Your task to perform on an android device: Open Chrome and go to the settings page Image 0: 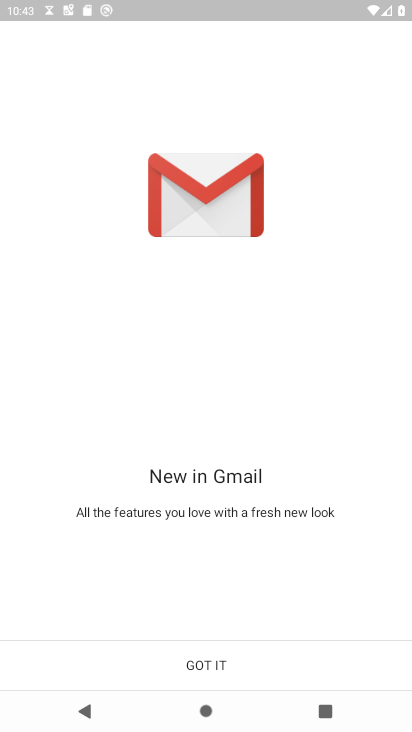
Step 0: click (221, 664)
Your task to perform on an android device: Open Chrome and go to the settings page Image 1: 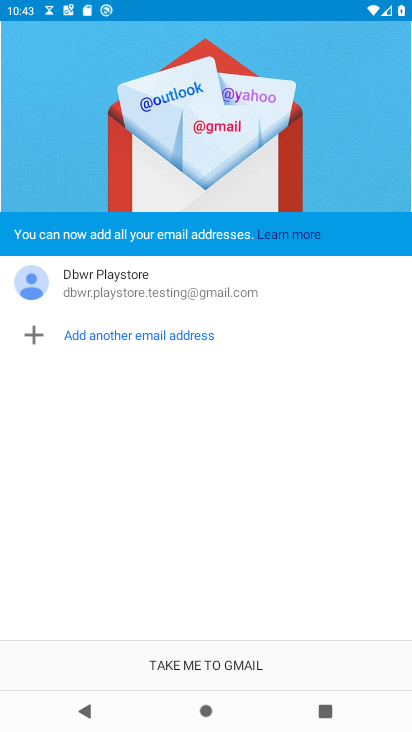
Step 1: click (282, 663)
Your task to perform on an android device: Open Chrome and go to the settings page Image 2: 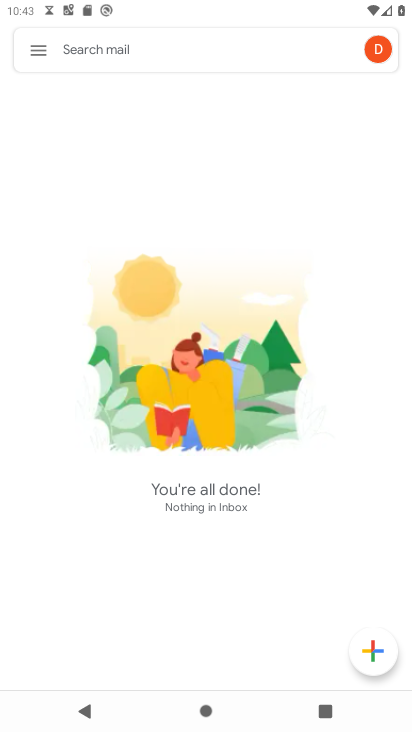
Step 2: press home button
Your task to perform on an android device: Open Chrome and go to the settings page Image 3: 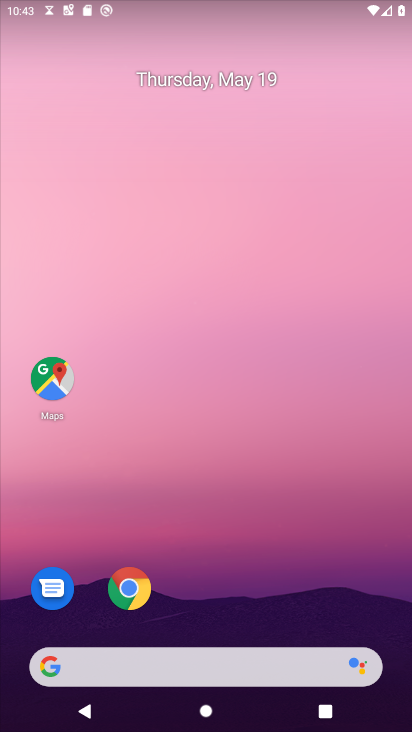
Step 3: drag from (296, 589) to (296, 707)
Your task to perform on an android device: Open Chrome and go to the settings page Image 4: 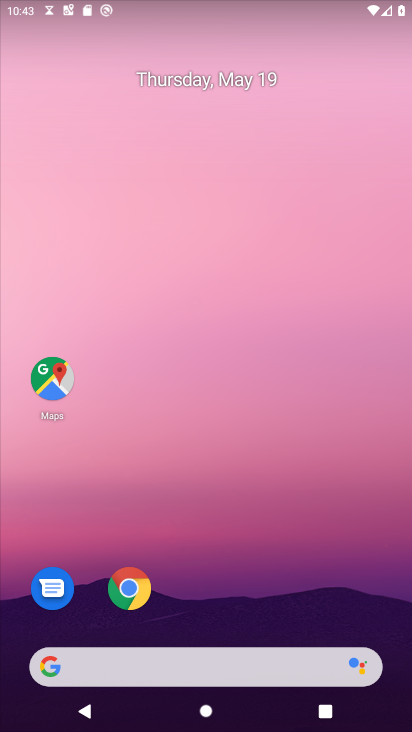
Step 4: click (131, 592)
Your task to perform on an android device: Open Chrome and go to the settings page Image 5: 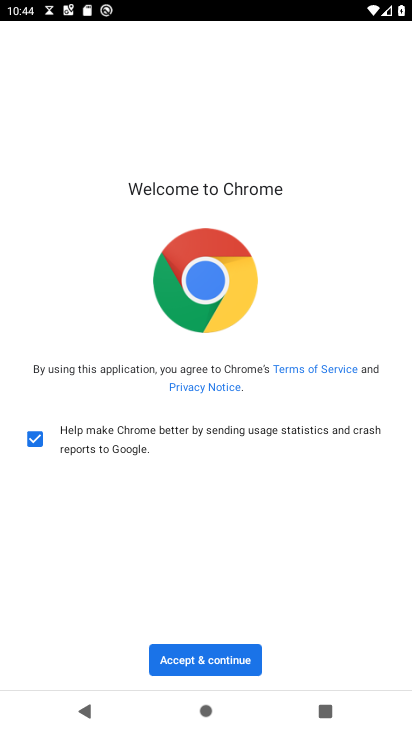
Step 5: click (235, 658)
Your task to perform on an android device: Open Chrome and go to the settings page Image 6: 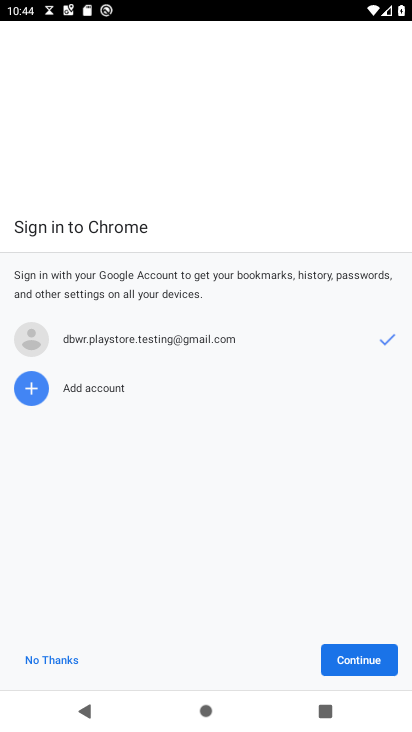
Step 6: click (347, 663)
Your task to perform on an android device: Open Chrome and go to the settings page Image 7: 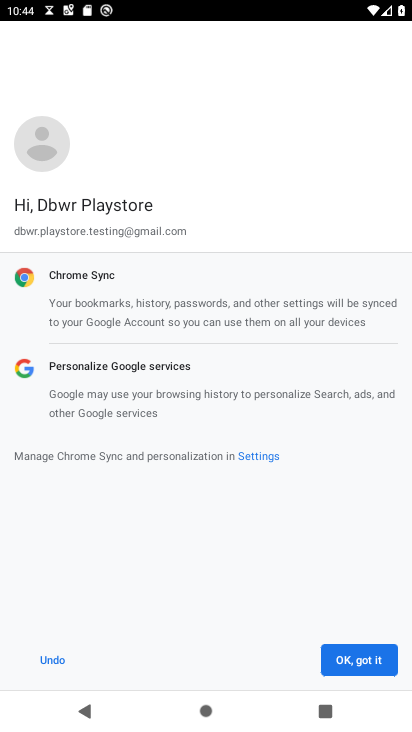
Step 7: click (359, 661)
Your task to perform on an android device: Open Chrome and go to the settings page Image 8: 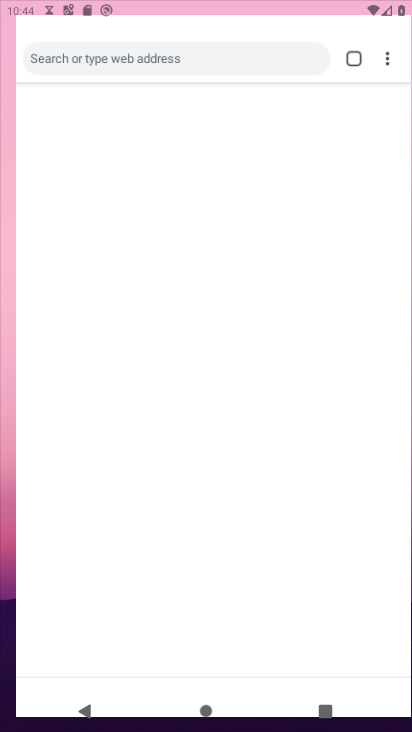
Step 8: click (359, 661)
Your task to perform on an android device: Open Chrome and go to the settings page Image 9: 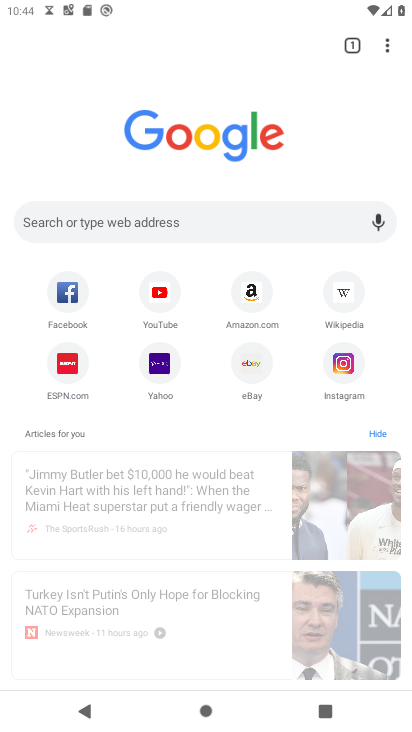
Step 9: click (386, 28)
Your task to perform on an android device: Open Chrome and go to the settings page Image 10: 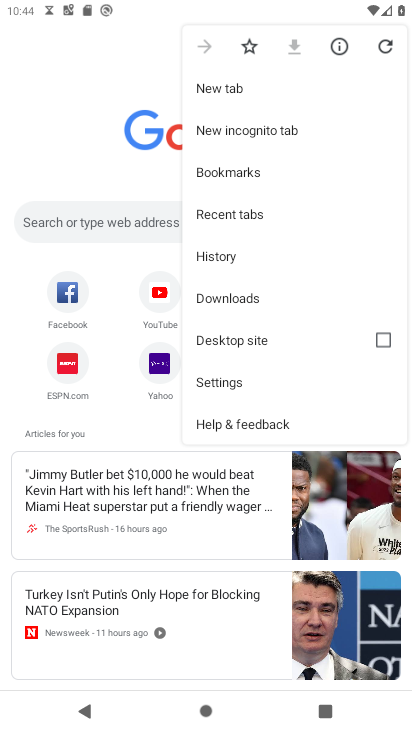
Step 10: click (276, 384)
Your task to perform on an android device: Open Chrome and go to the settings page Image 11: 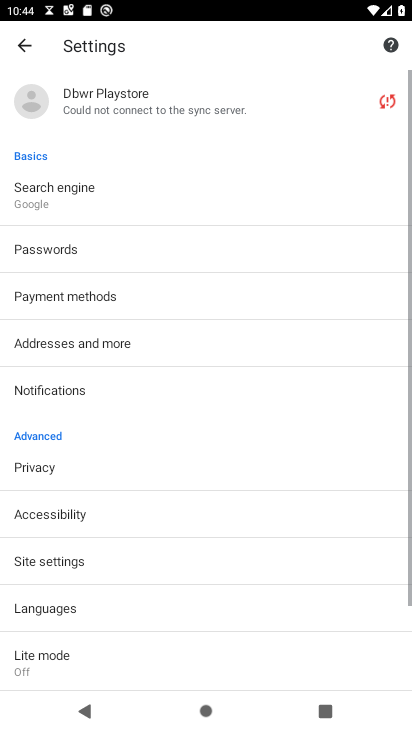
Step 11: task complete